Your task to perform on an android device: Search for the best rated running shoes on Nike.com Image 0: 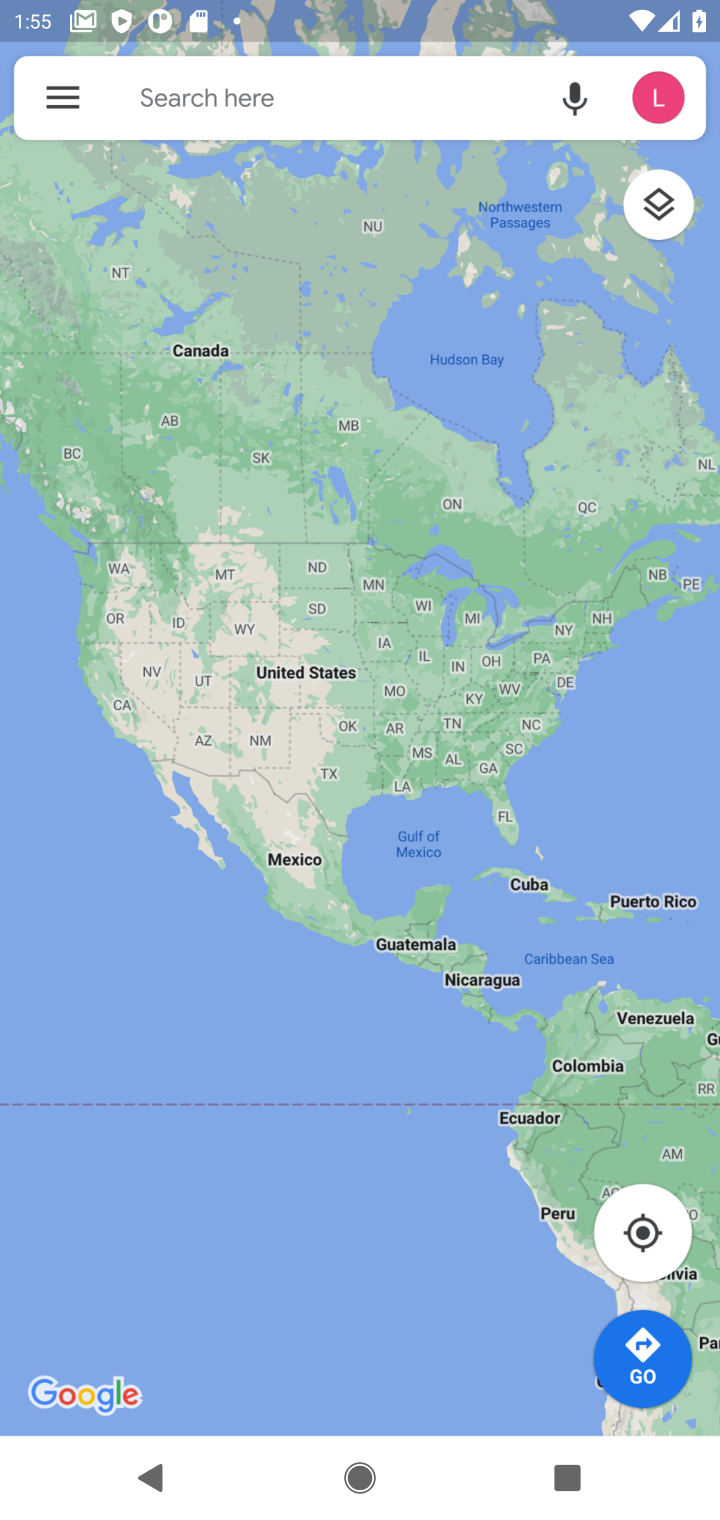
Step 0: press home button
Your task to perform on an android device: Search for the best rated running shoes on Nike.com Image 1: 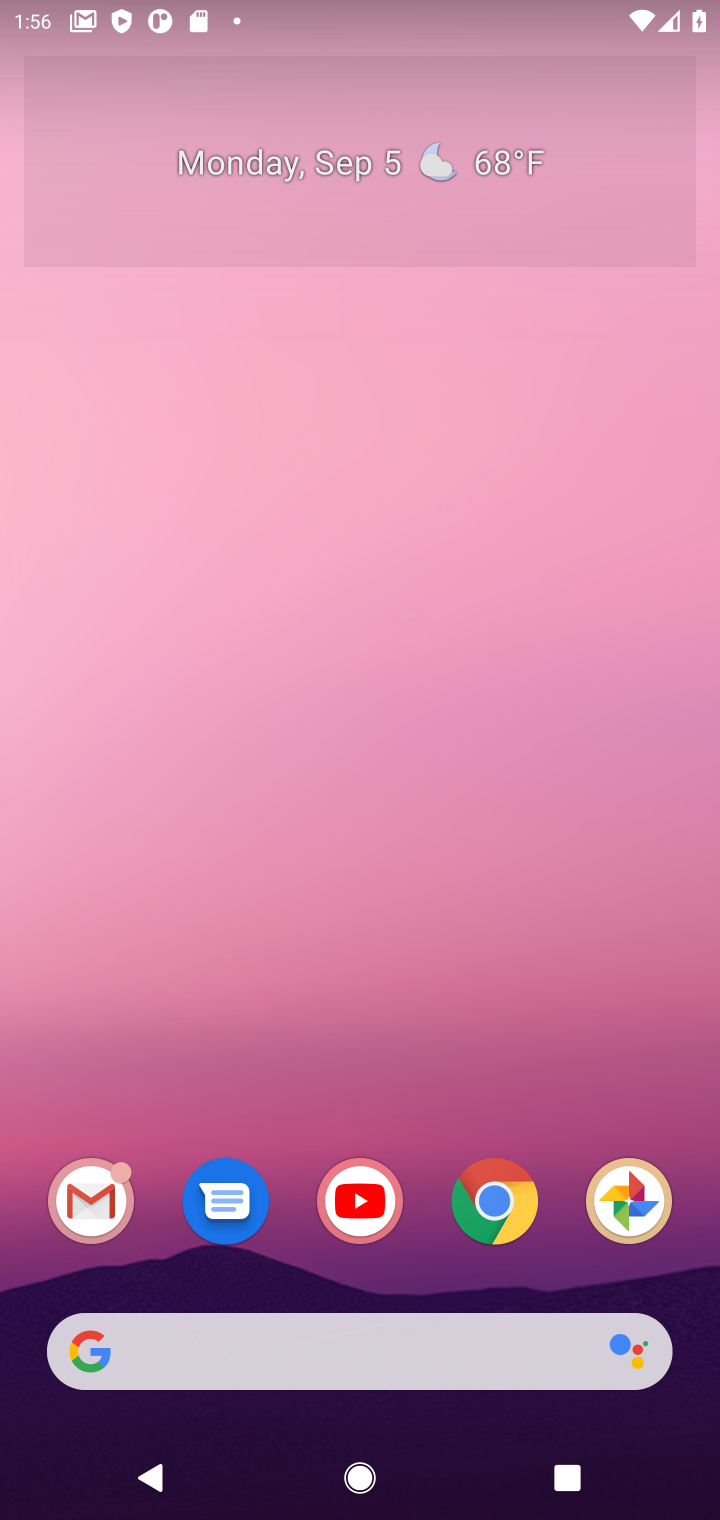
Step 1: click (501, 1209)
Your task to perform on an android device: Search for the best rated running shoes on Nike.com Image 2: 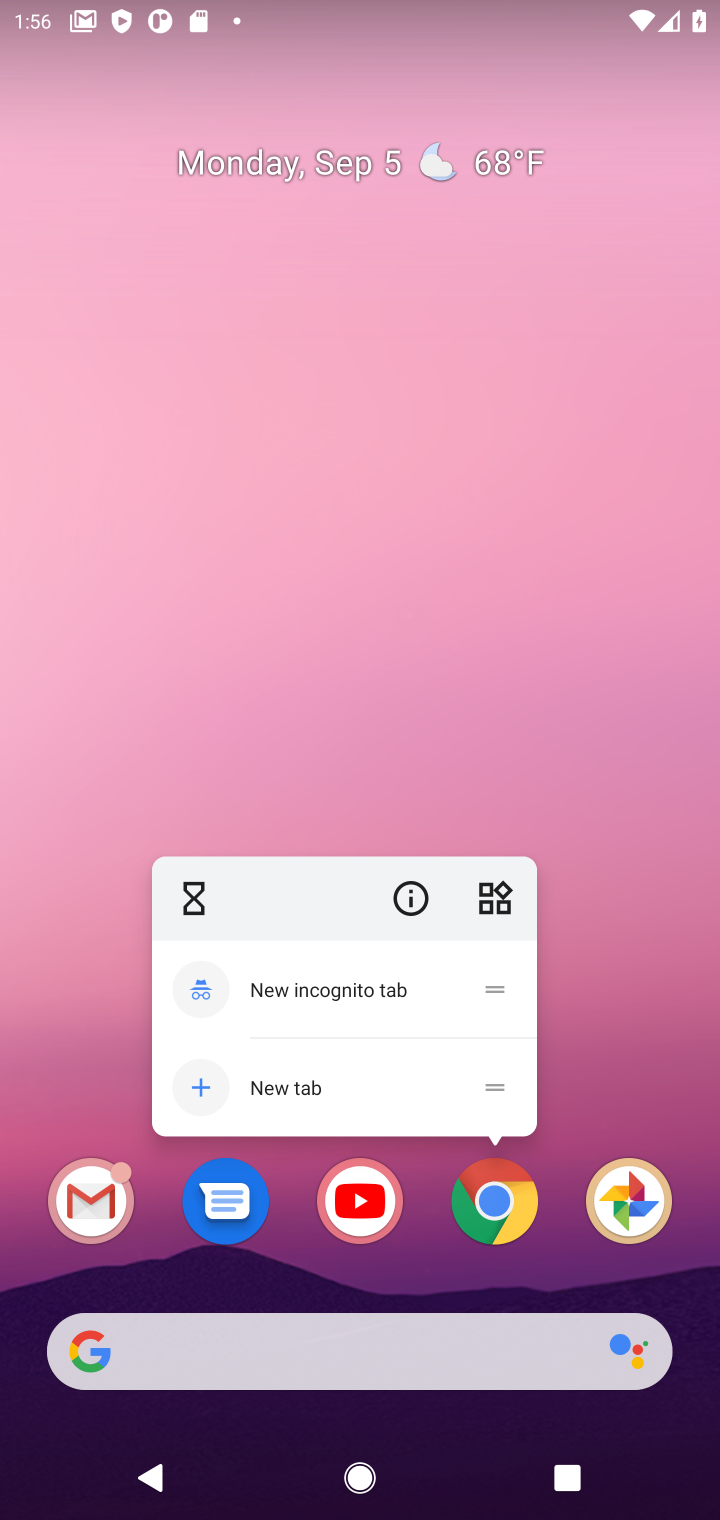
Step 2: click (514, 1192)
Your task to perform on an android device: Search for the best rated running shoes on Nike.com Image 3: 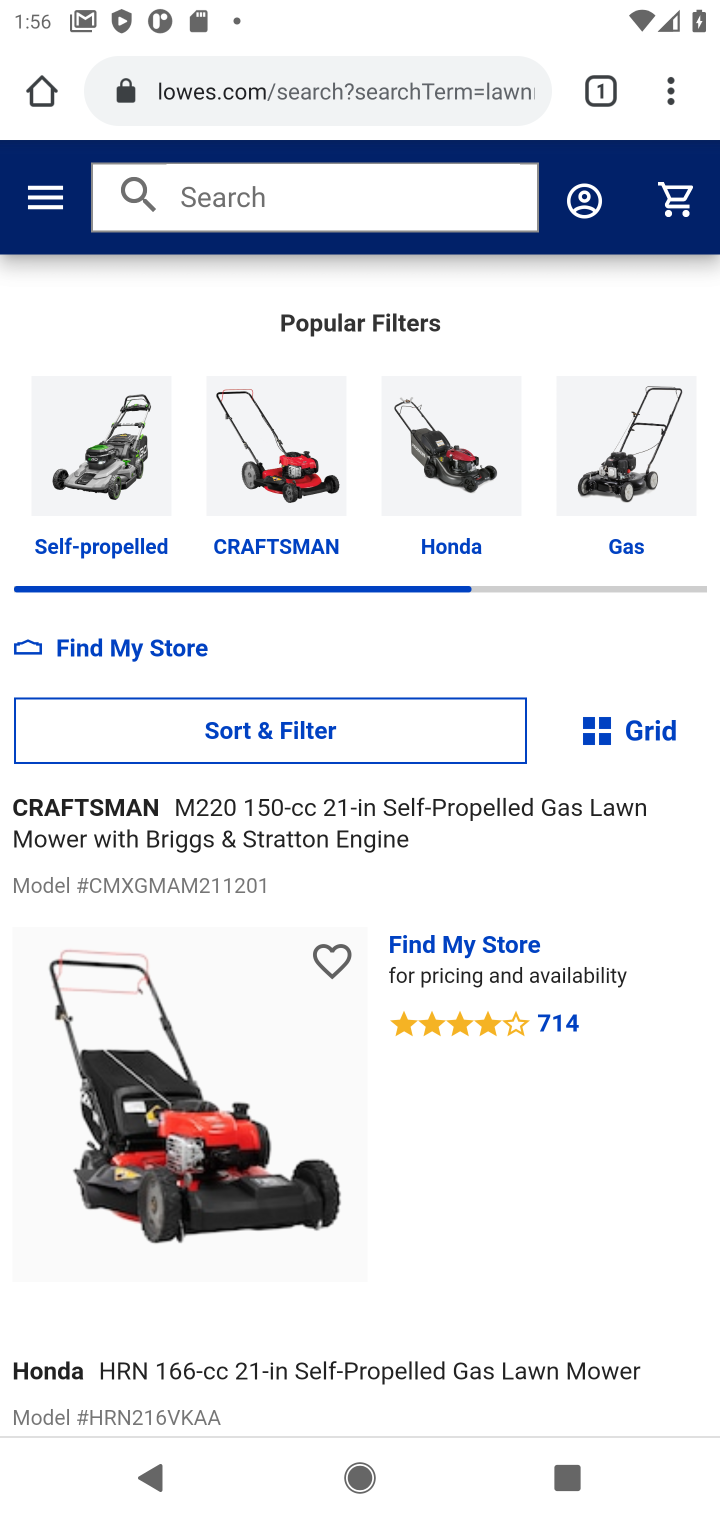
Step 3: click (384, 77)
Your task to perform on an android device: Search for the best rated running shoes on Nike.com Image 4: 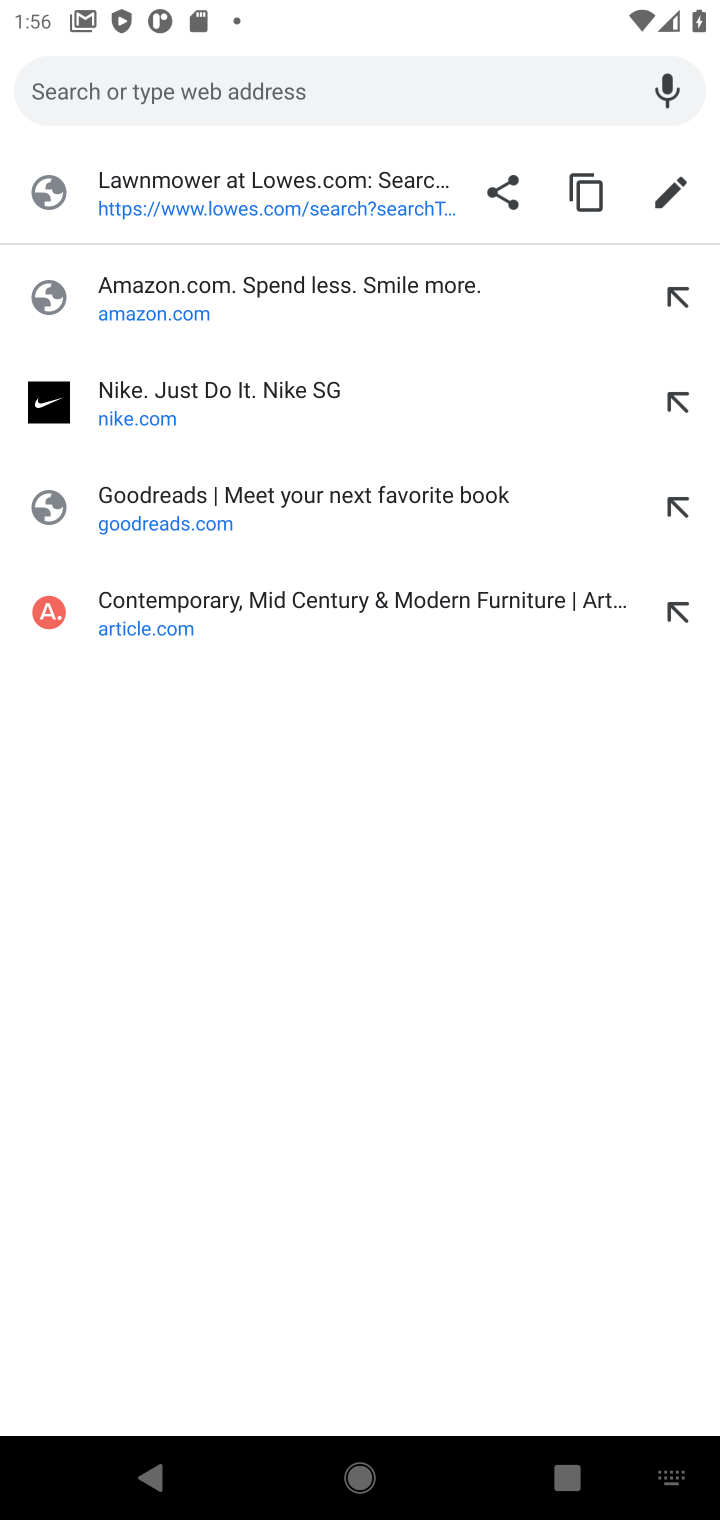
Step 4: type "Nike.com"
Your task to perform on an android device: Search for the best rated running shoes on Nike.com Image 5: 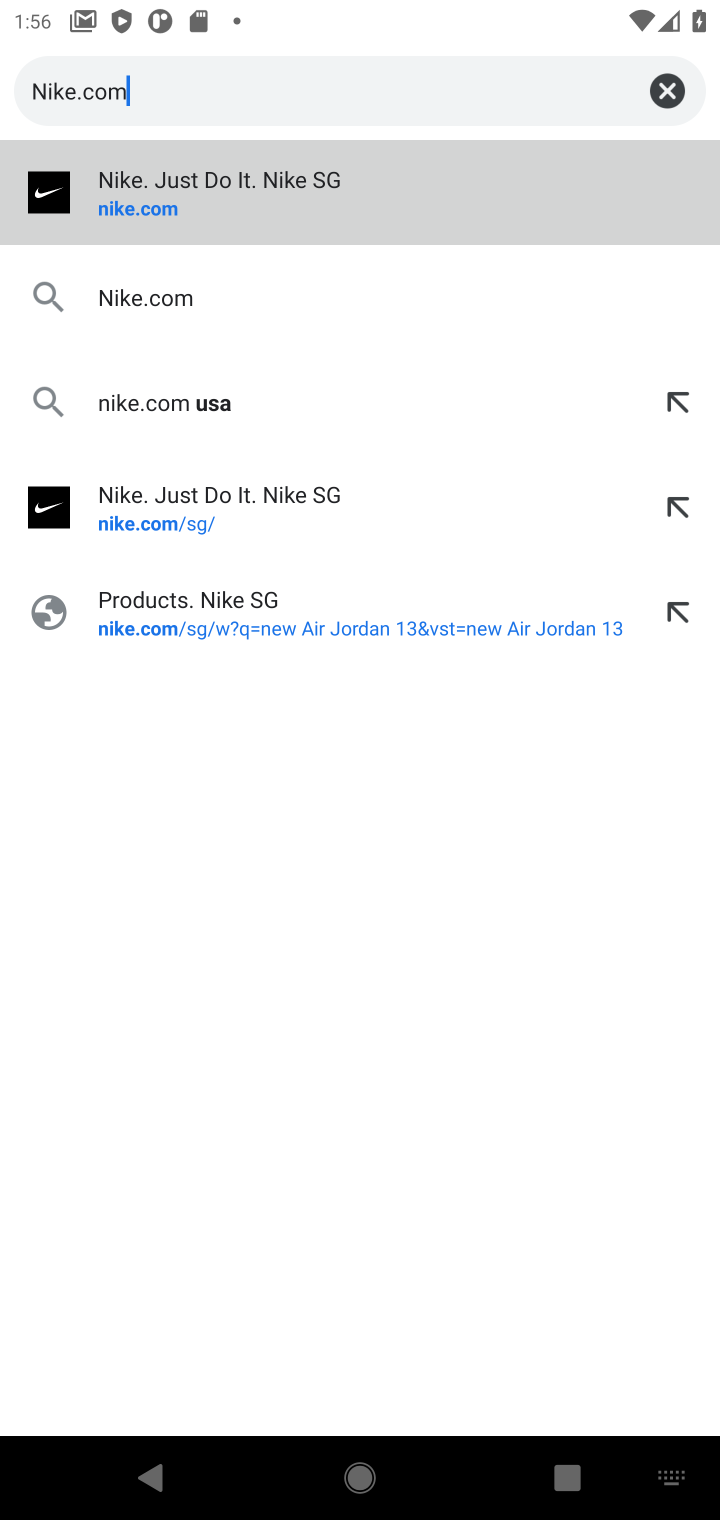
Step 5: press enter
Your task to perform on an android device: Search for the best rated running shoes on Nike.com Image 6: 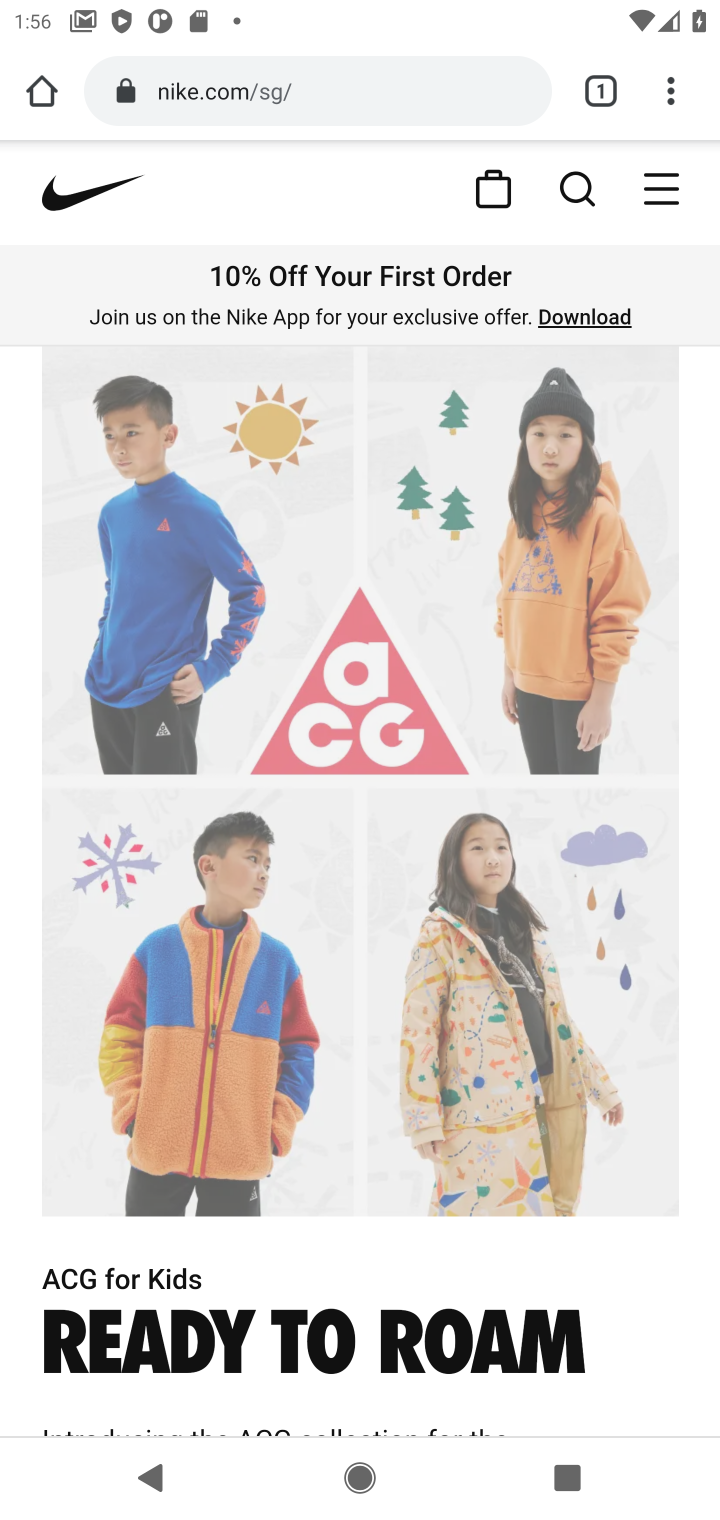
Step 6: click (558, 194)
Your task to perform on an android device: Search for the best rated running shoes on Nike.com Image 7: 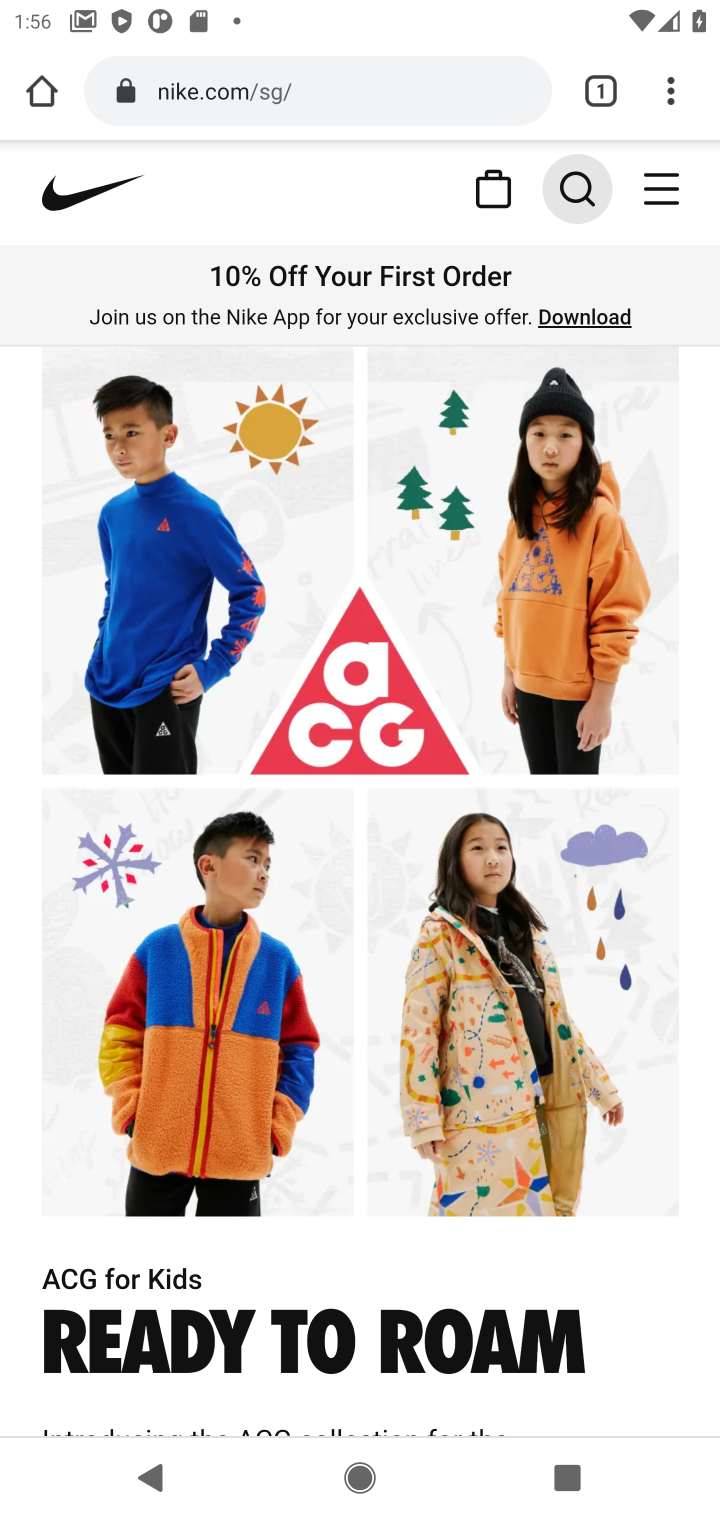
Step 7: click (568, 216)
Your task to perform on an android device: Search for the best rated running shoes on Nike.com Image 8: 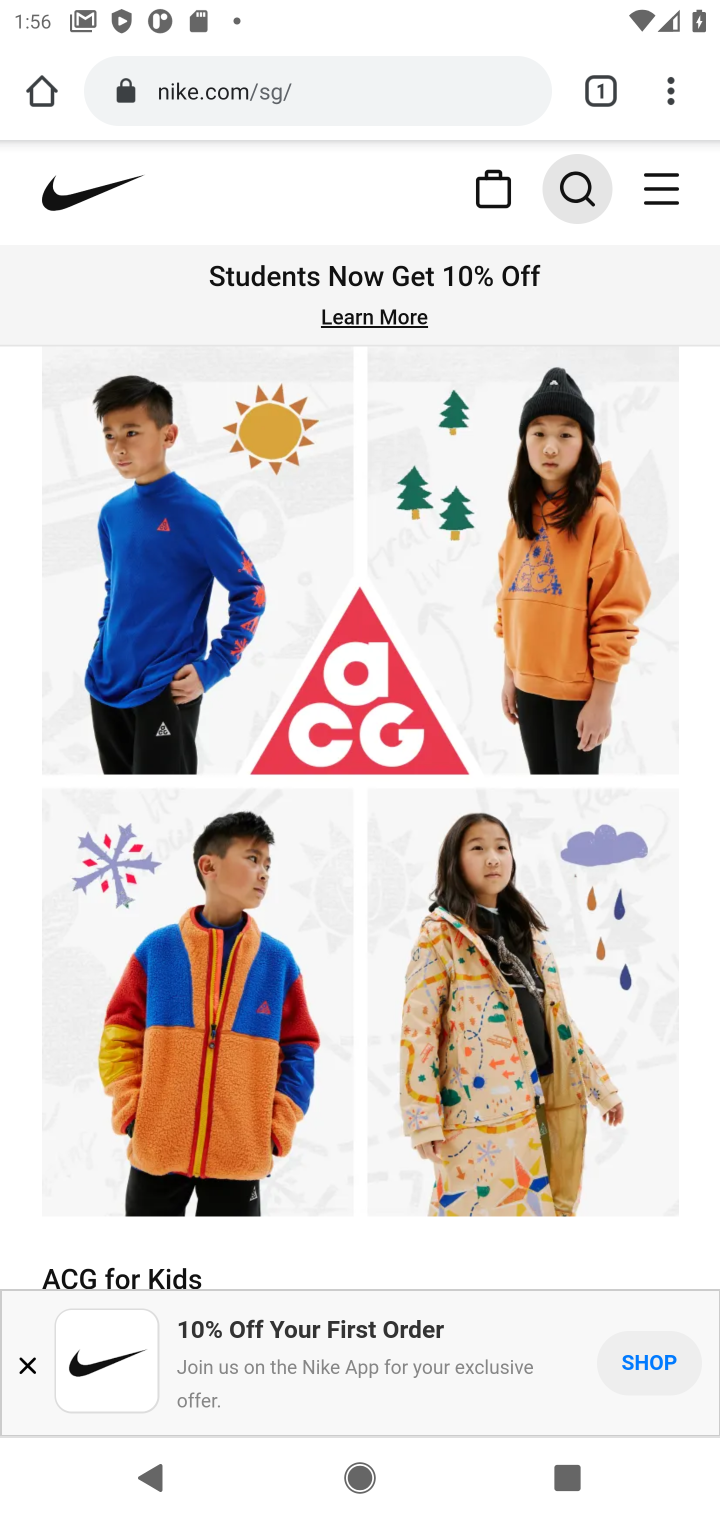
Step 8: click (542, 157)
Your task to perform on an android device: Search for the best rated running shoes on Nike.com Image 9: 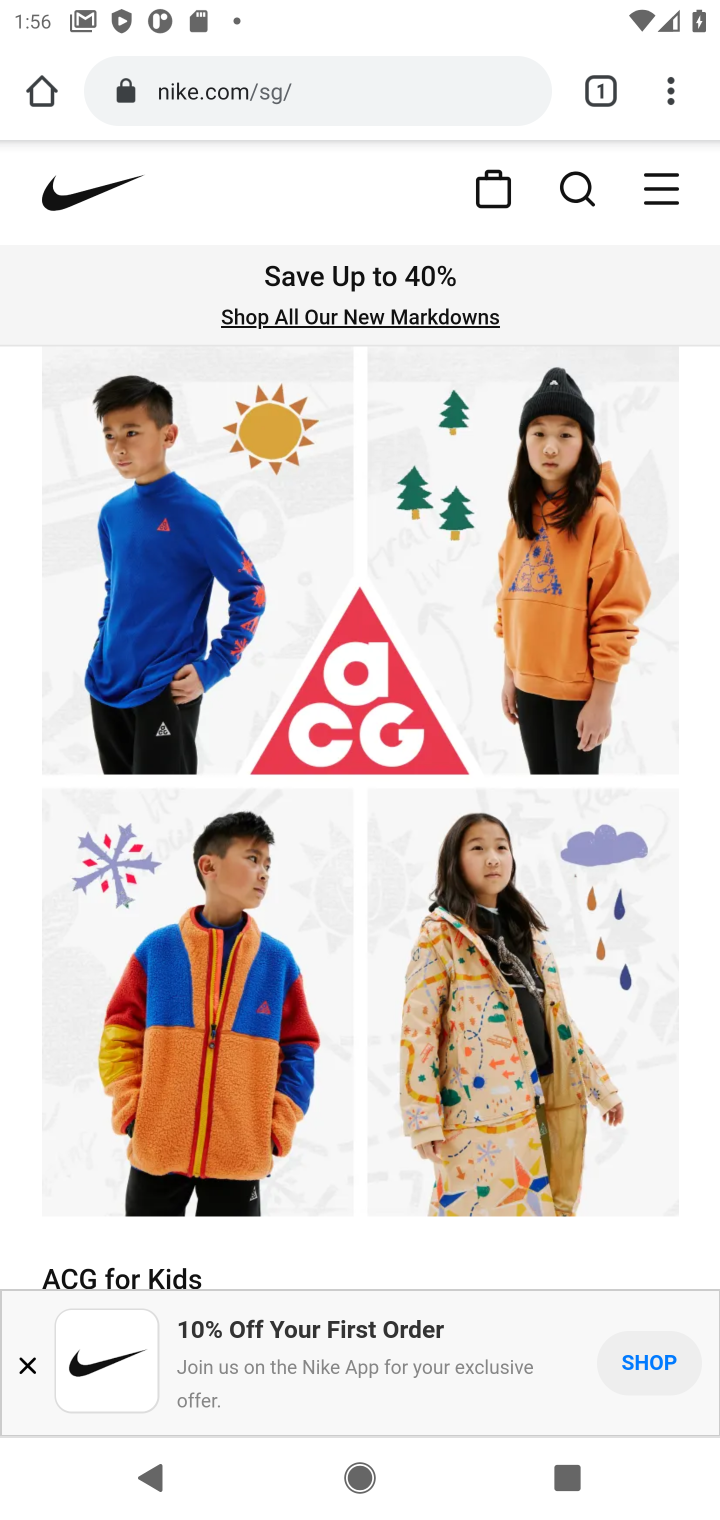
Step 9: click (550, 168)
Your task to perform on an android device: Search for the best rated running shoes on Nike.com Image 10: 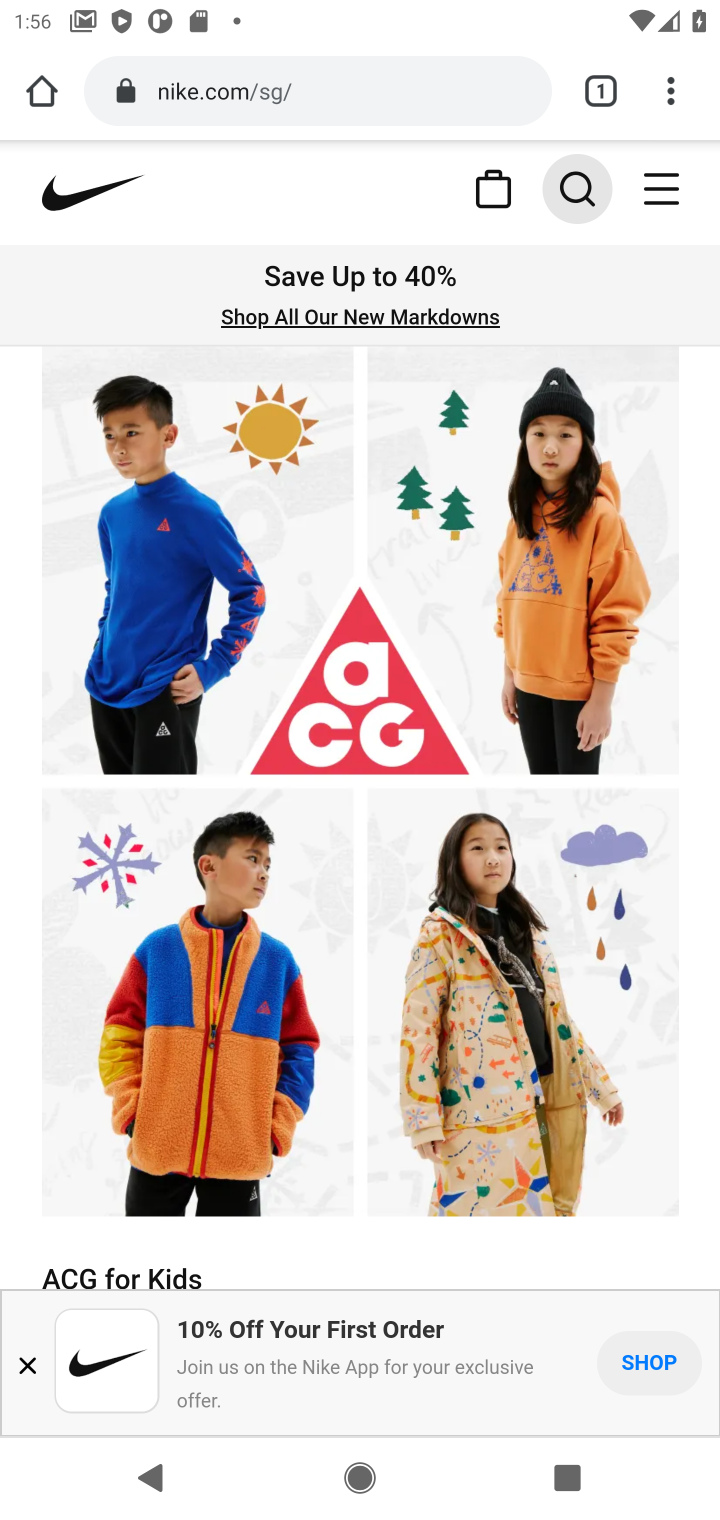
Step 10: click (409, 210)
Your task to perform on an android device: Search for the best rated running shoes on Nike.com Image 11: 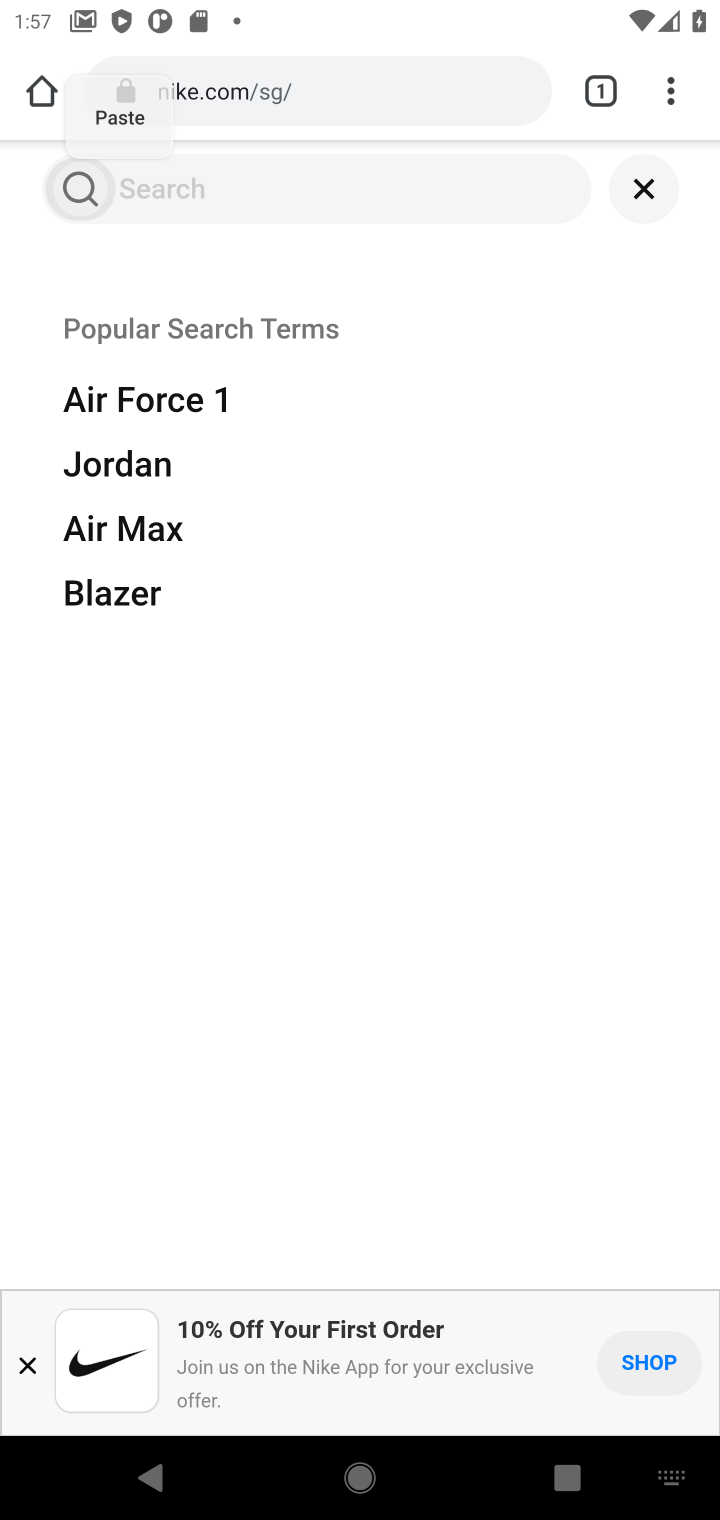
Step 11: click (401, 198)
Your task to perform on an android device: Search for the best rated running shoes on Nike.com Image 12: 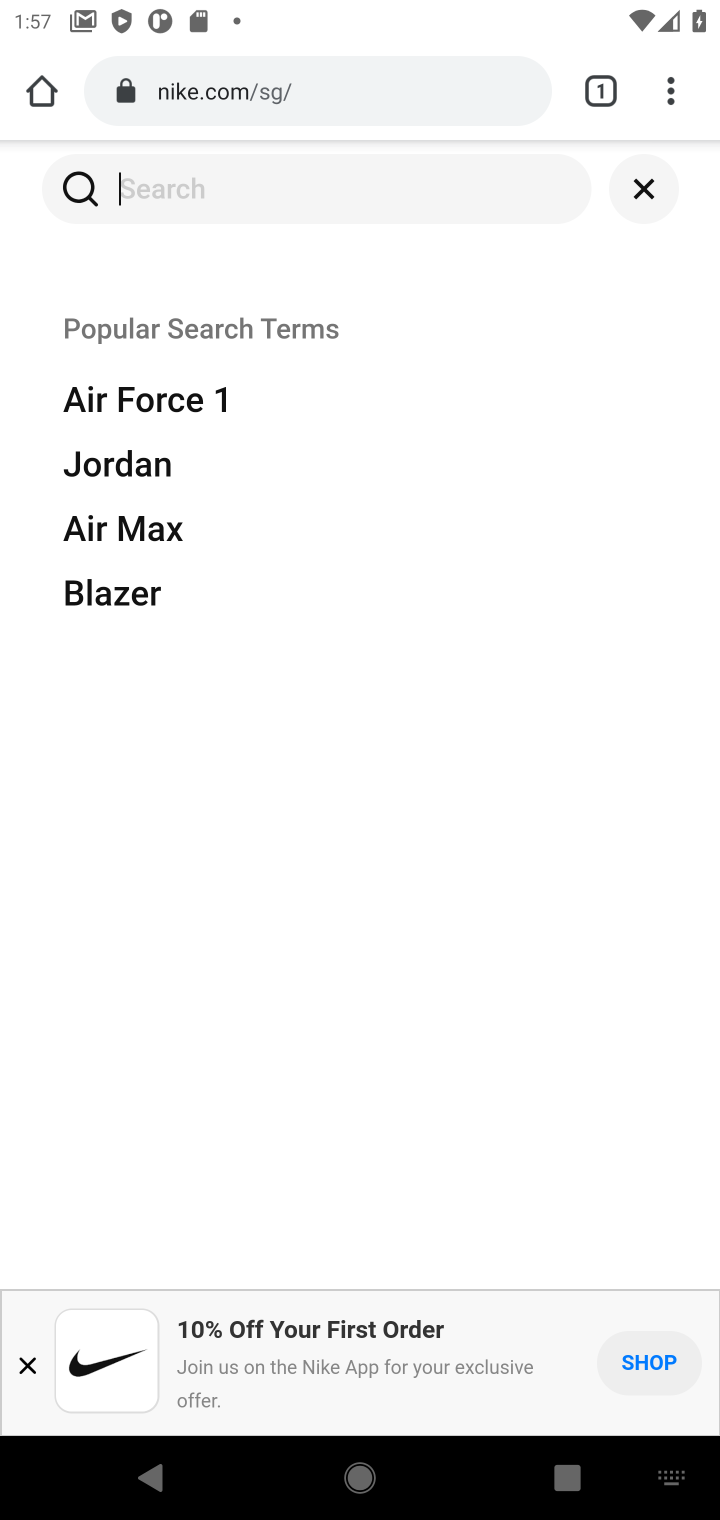
Step 12: click (299, 187)
Your task to perform on an android device: Search for the best rated running shoes on Nike.com Image 13: 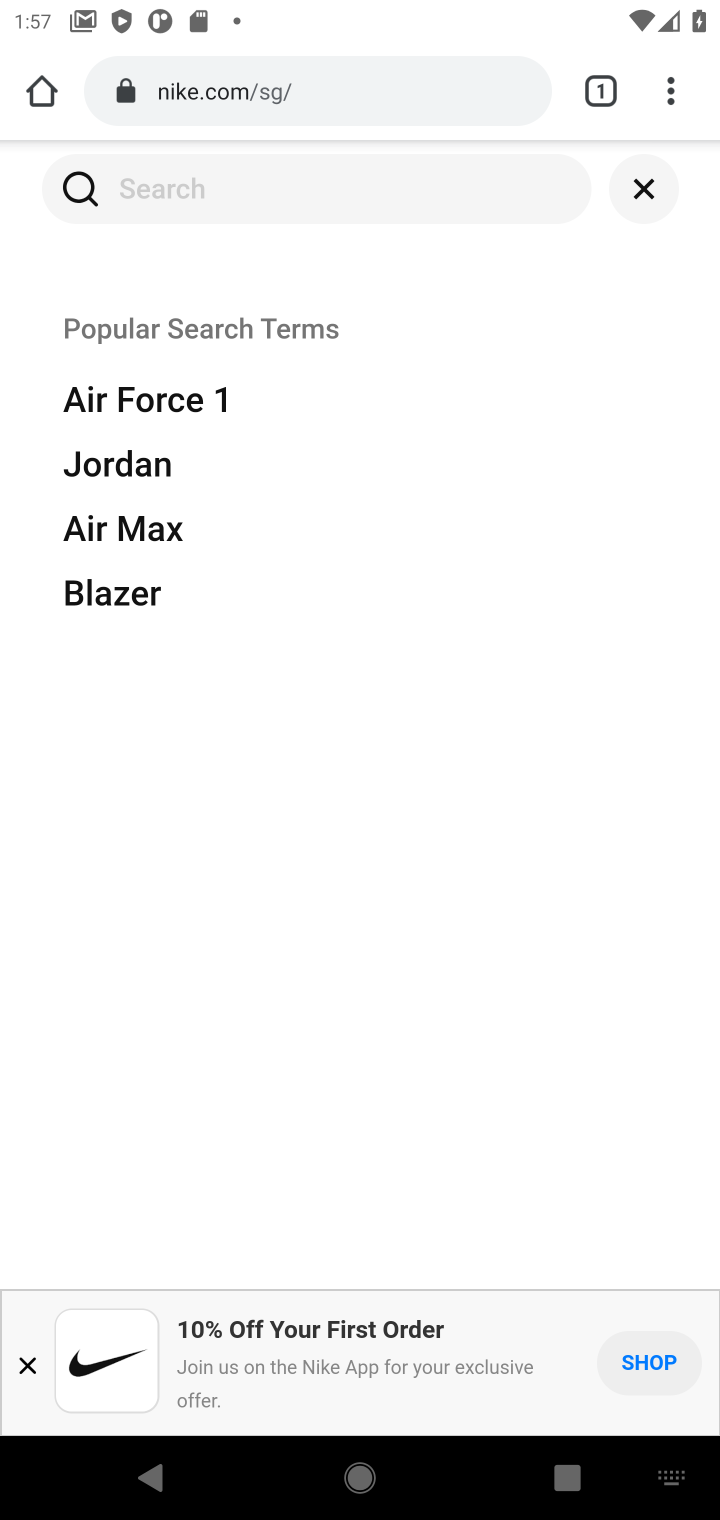
Step 13: type " running shoes"
Your task to perform on an android device: Search for the best rated running shoes on Nike.com Image 14: 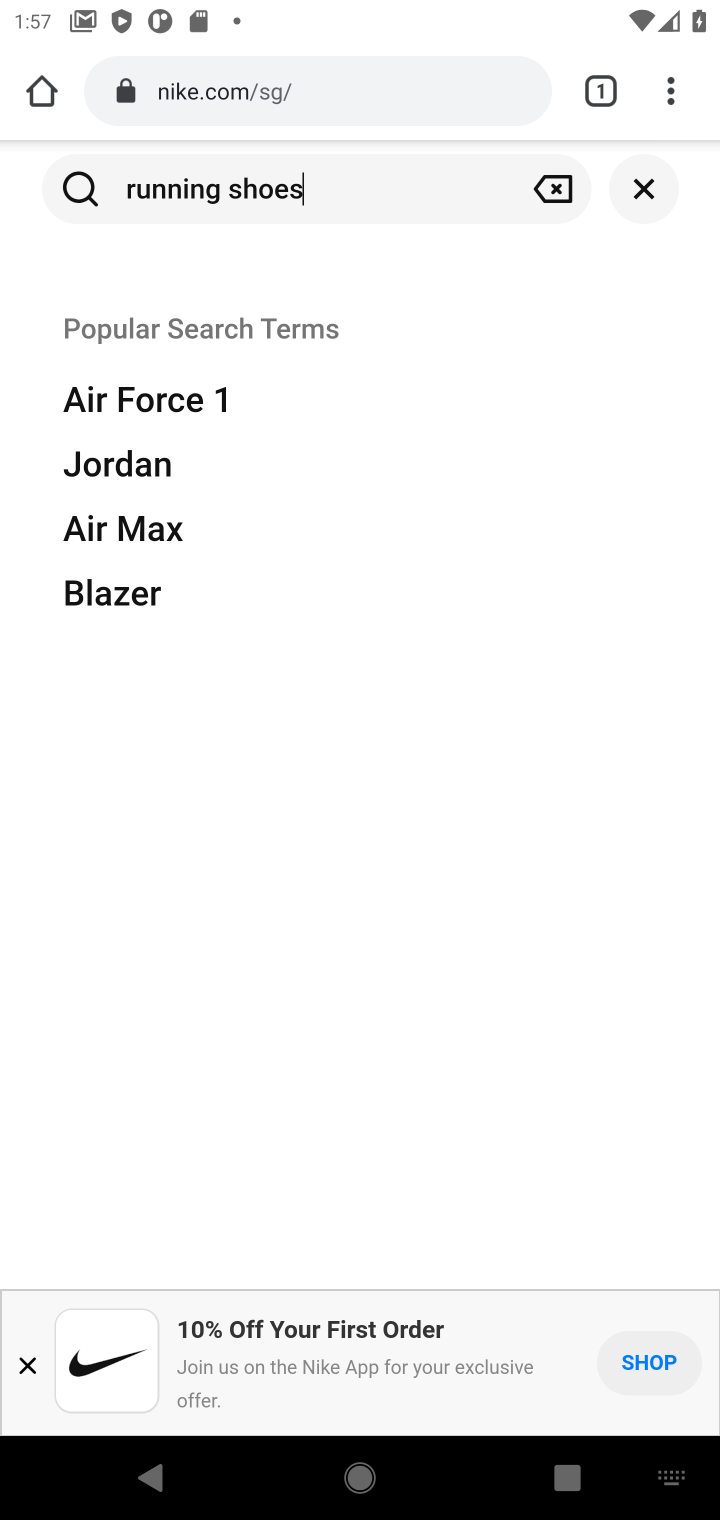
Step 14: press enter
Your task to perform on an android device: Search for the best rated running shoes on Nike.com Image 15: 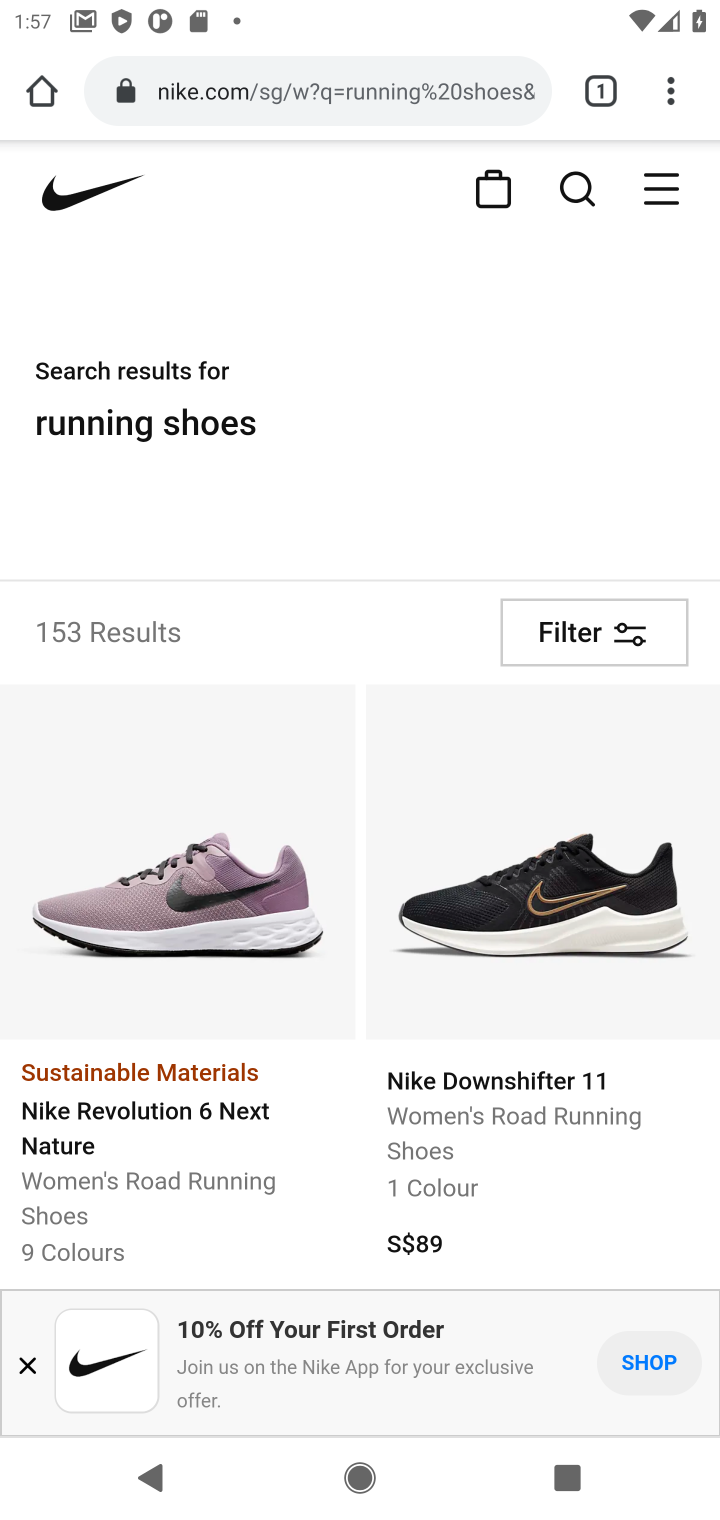
Step 15: task complete